Your task to perform on an android device: toggle pop-ups in chrome Image 0: 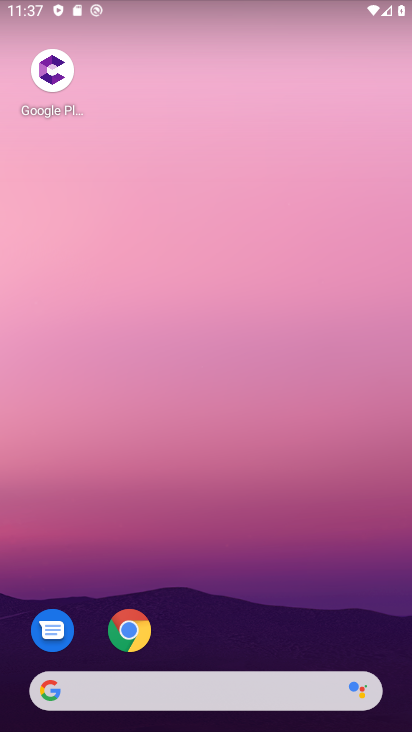
Step 0: click (123, 627)
Your task to perform on an android device: toggle pop-ups in chrome Image 1: 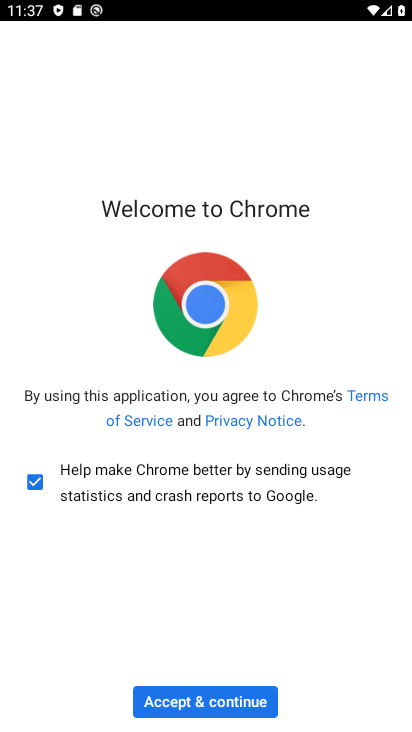
Step 1: click (169, 697)
Your task to perform on an android device: toggle pop-ups in chrome Image 2: 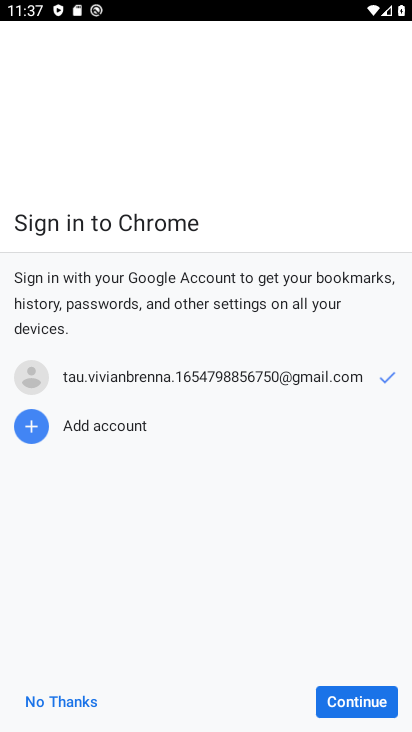
Step 2: click (377, 707)
Your task to perform on an android device: toggle pop-ups in chrome Image 3: 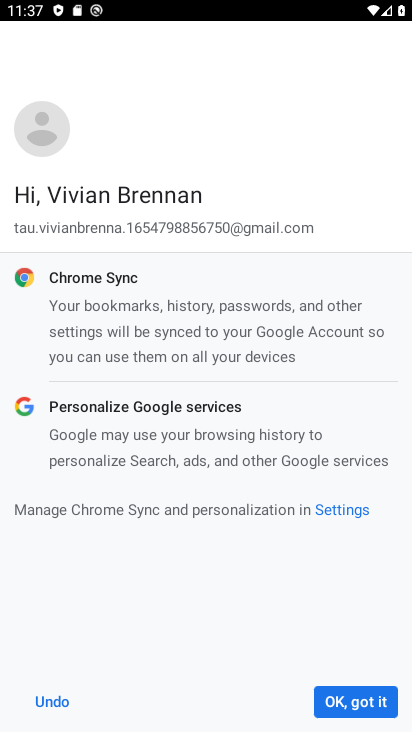
Step 3: click (377, 707)
Your task to perform on an android device: toggle pop-ups in chrome Image 4: 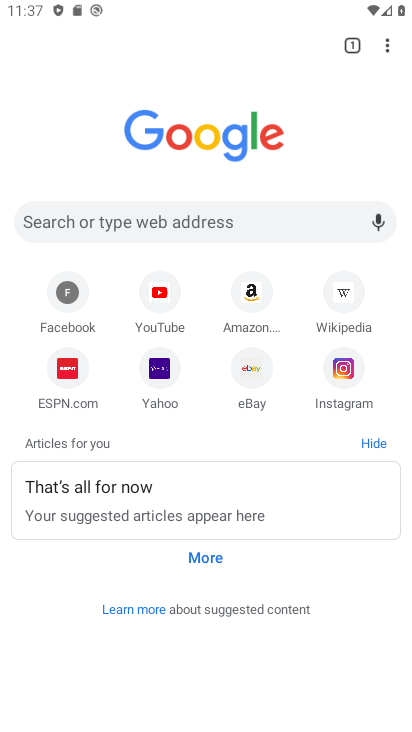
Step 4: click (384, 55)
Your task to perform on an android device: toggle pop-ups in chrome Image 5: 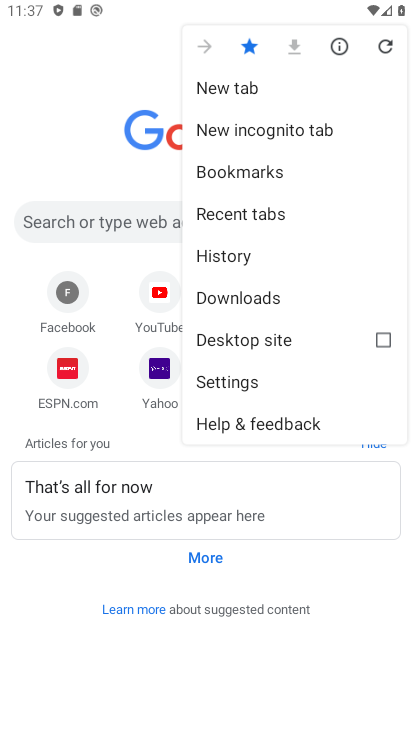
Step 5: click (259, 379)
Your task to perform on an android device: toggle pop-ups in chrome Image 6: 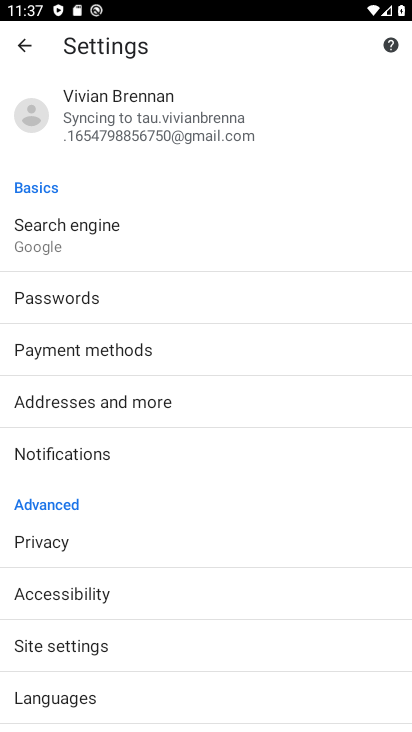
Step 6: click (141, 641)
Your task to perform on an android device: toggle pop-ups in chrome Image 7: 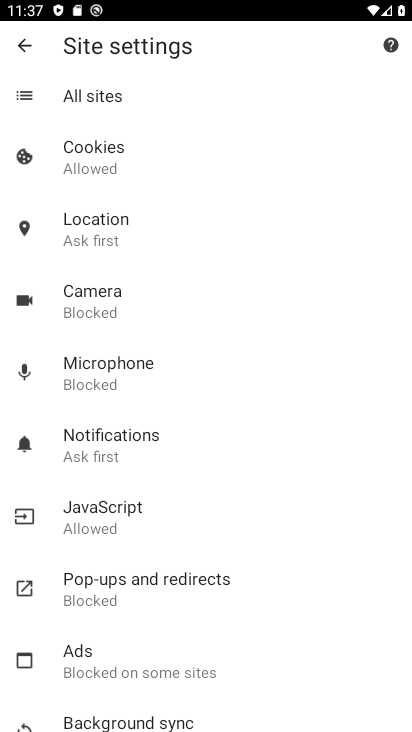
Step 7: click (152, 590)
Your task to perform on an android device: toggle pop-ups in chrome Image 8: 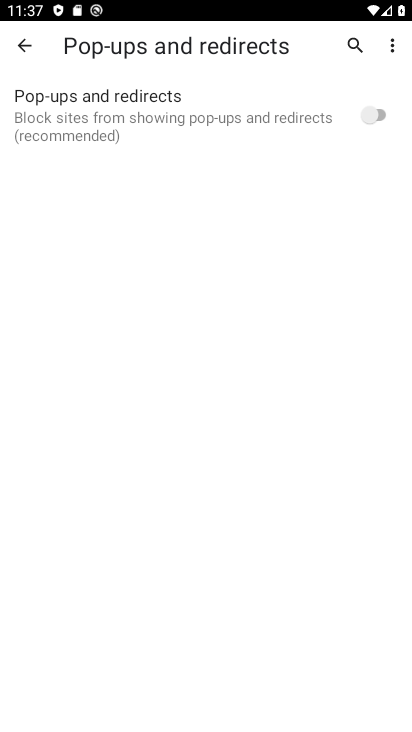
Step 8: click (383, 117)
Your task to perform on an android device: toggle pop-ups in chrome Image 9: 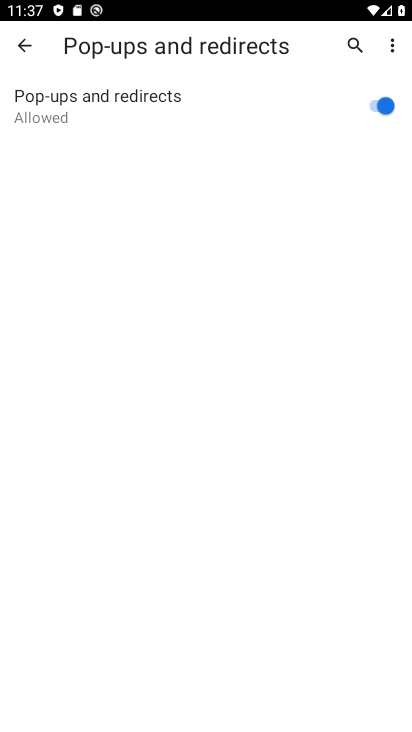
Step 9: task complete